Your task to perform on an android device: Open the Play Movies app and select the watchlist tab. Image 0: 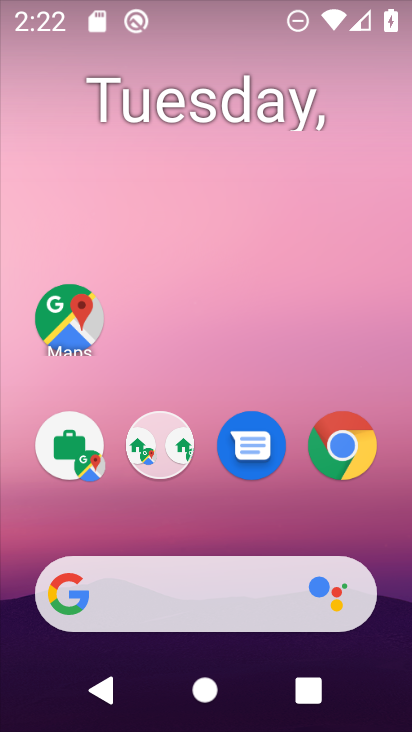
Step 0: drag from (293, 518) to (284, 243)
Your task to perform on an android device: Open the Play Movies app and select the watchlist tab. Image 1: 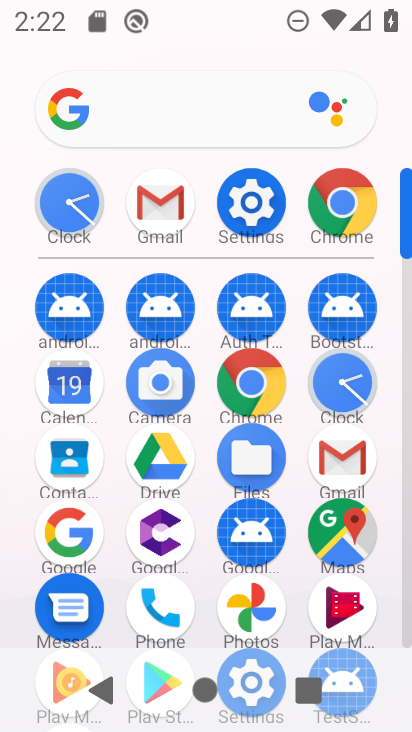
Step 1: drag from (307, 543) to (305, 292)
Your task to perform on an android device: Open the Play Movies app and select the watchlist tab. Image 2: 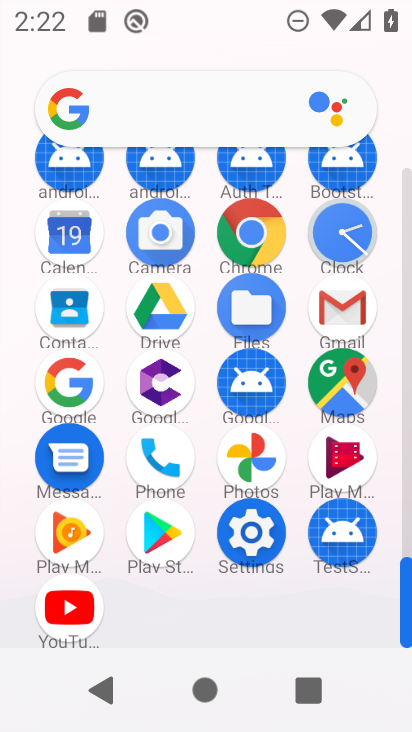
Step 2: click (337, 473)
Your task to perform on an android device: Open the Play Movies app and select the watchlist tab. Image 3: 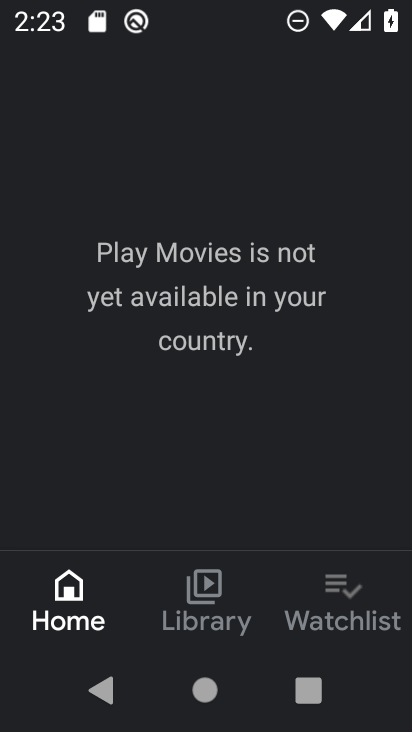
Step 3: click (350, 599)
Your task to perform on an android device: Open the Play Movies app and select the watchlist tab. Image 4: 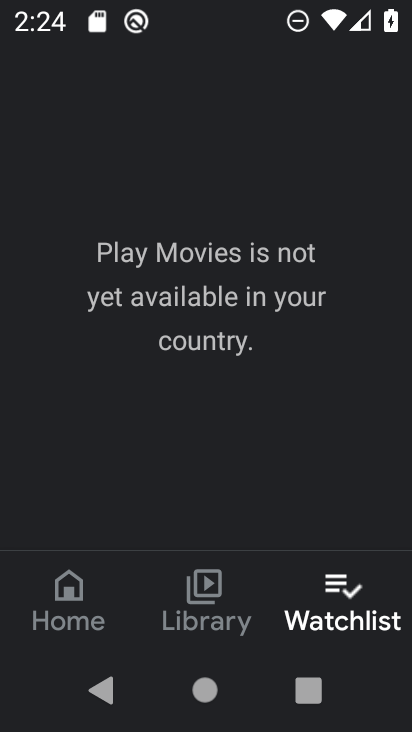
Step 4: task complete